Your task to perform on an android device: see creations saved in the google photos Image 0: 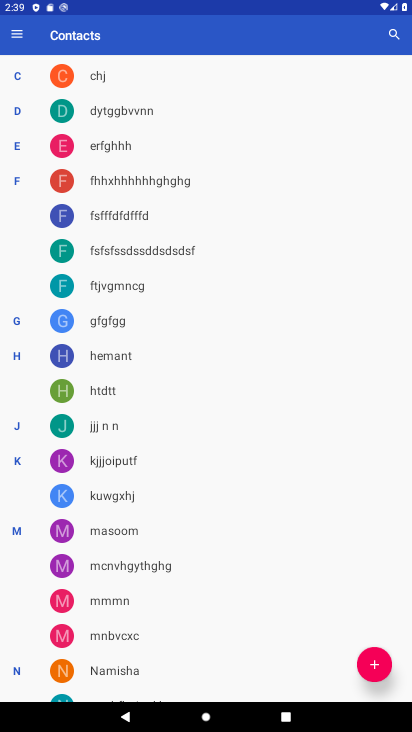
Step 0: press home button
Your task to perform on an android device: see creations saved in the google photos Image 1: 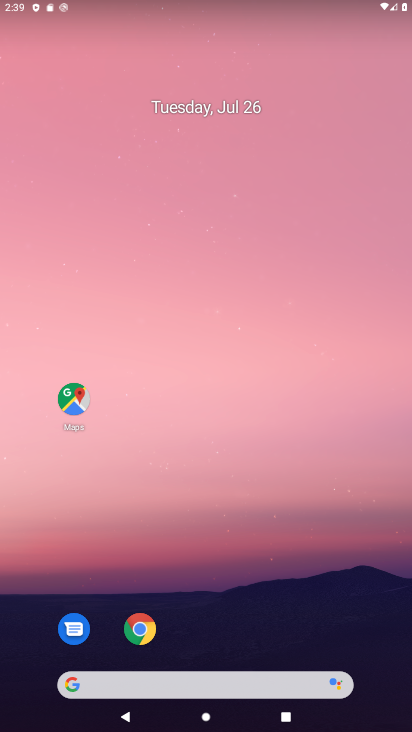
Step 1: click (134, 629)
Your task to perform on an android device: see creations saved in the google photos Image 2: 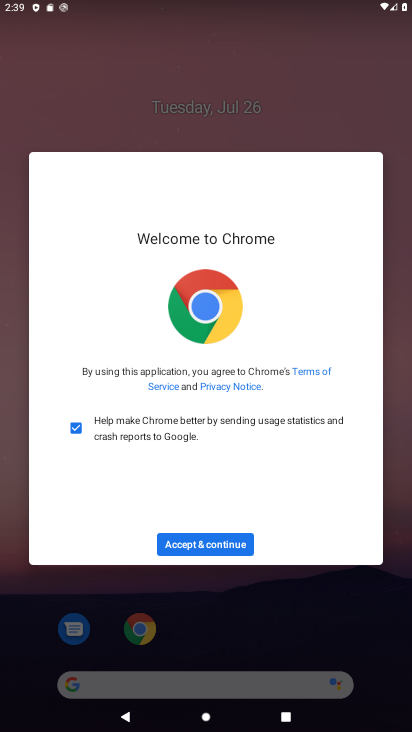
Step 2: click (194, 538)
Your task to perform on an android device: see creations saved in the google photos Image 3: 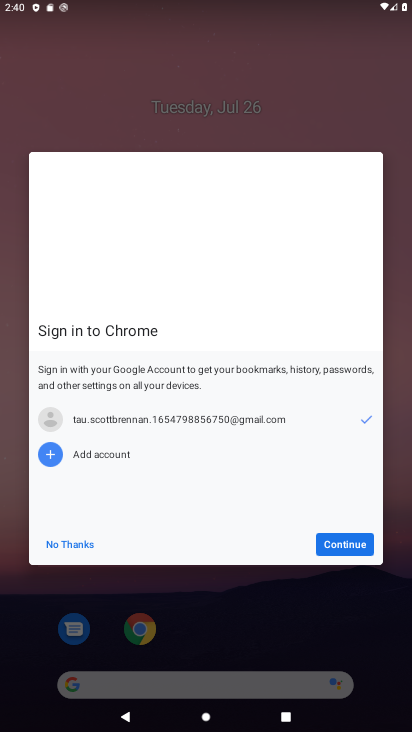
Step 3: click (339, 542)
Your task to perform on an android device: see creations saved in the google photos Image 4: 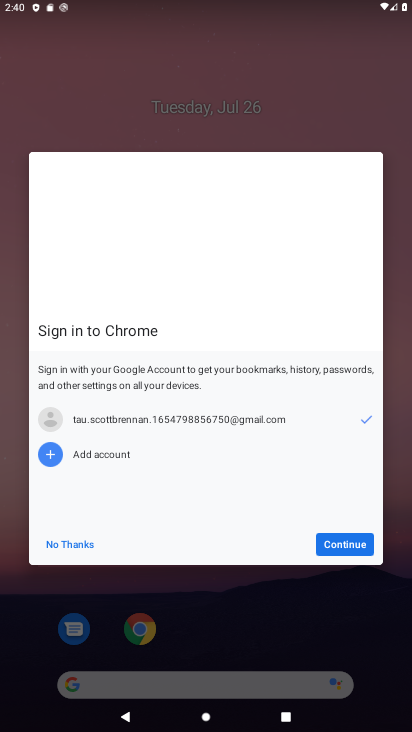
Step 4: click (339, 542)
Your task to perform on an android device: see creations saved in the google photos Image 5: 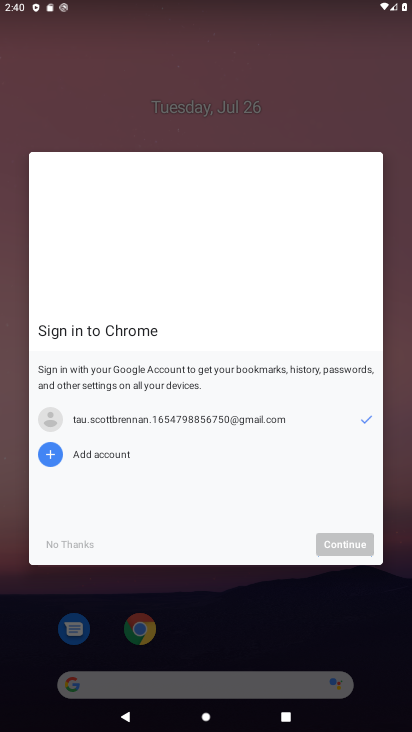
Step 5: click (339, 542)
Your task to perform on an android device: see creations saved in the google photos Image 6: 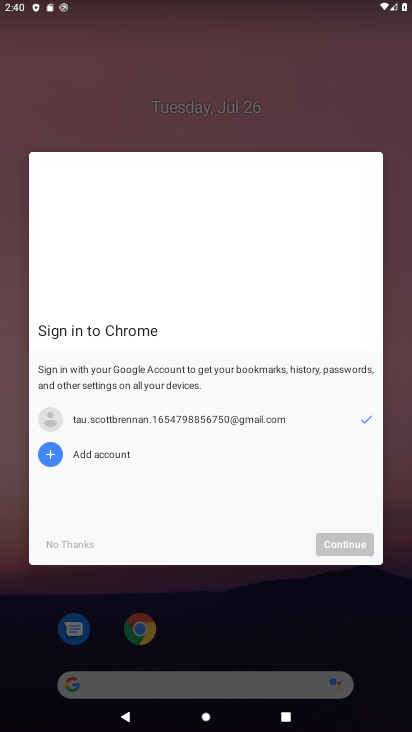
Step 6: click (339, 542)
Your task to perform on an android device: see creations saved in the google photos Image 7: 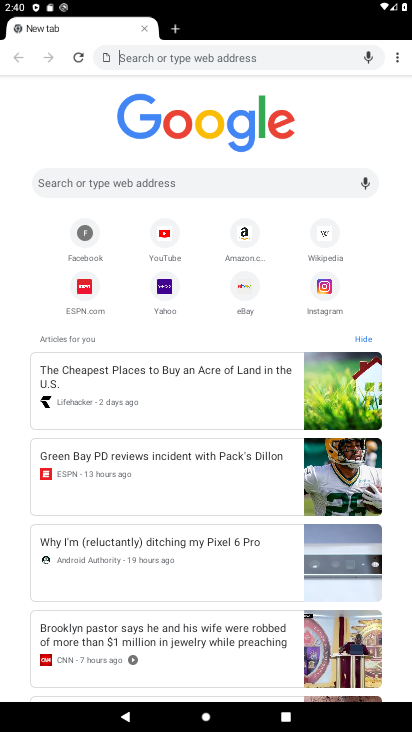
Step 7: press home button
Your task to perform on an android device: see creations saved in the google photos Image 8: 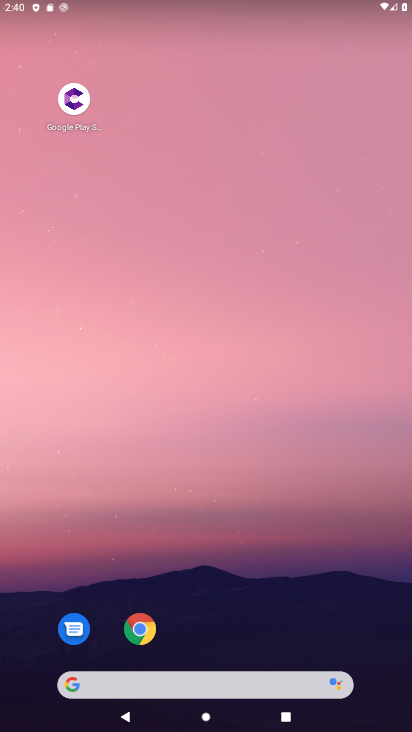
Step 8: drag from (275, 557) to (408, 11)
Your task to perform on an android device: see creations saved in the google photos Image 9: 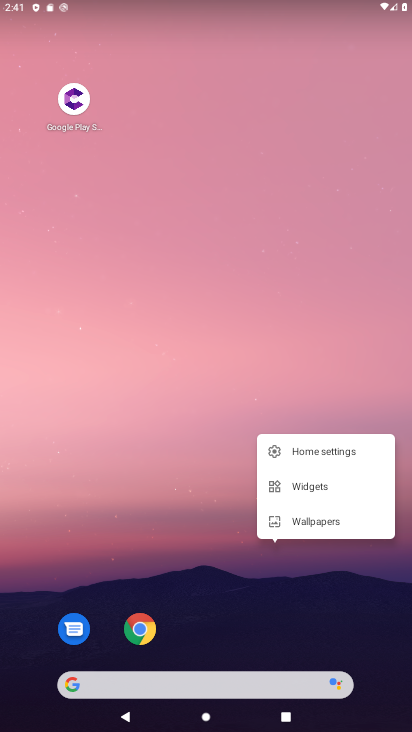
Step 9: drag from (262, 665) to (198, 255)
Your task to perform on an android device: see creations saved in the google photos Image 10: 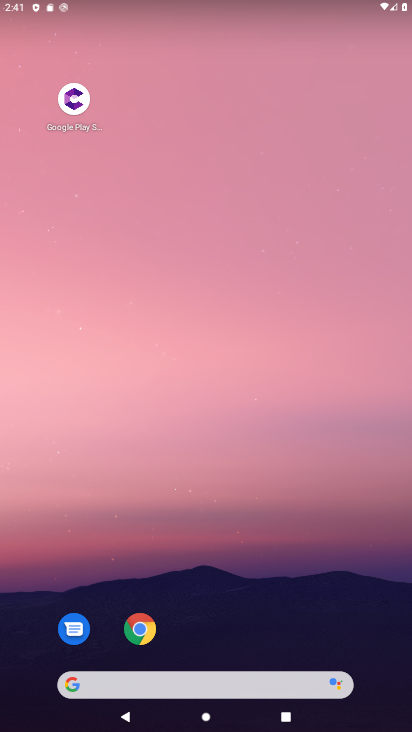
Step 10: drag from (393, 608) to (352, 4)
Your task to perform on an android device: see creations saved in the google photos Image 11: 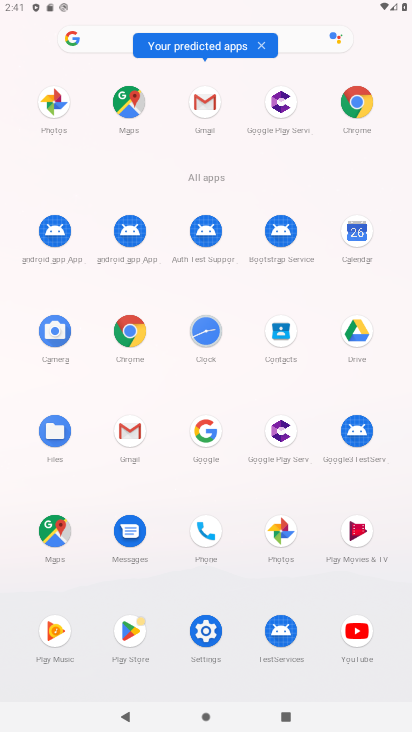
Step 11: click (293, 534)
Your task to perform on an android device: see creations saved in the google photos Image 12: 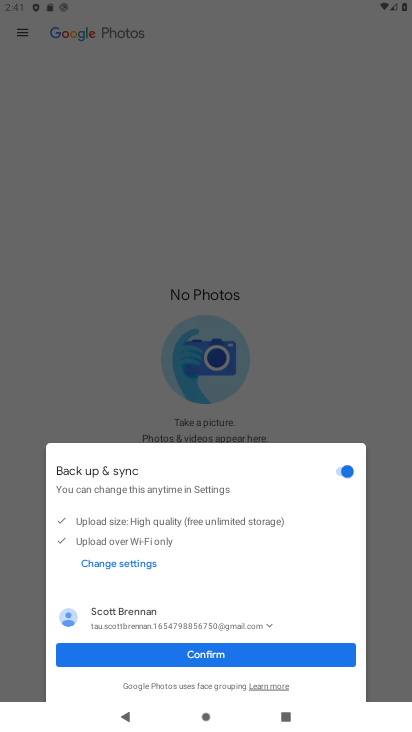
Step 12: click (131, 660)
Your task to perform on an android device: see creations saved in the google photos Image 13: 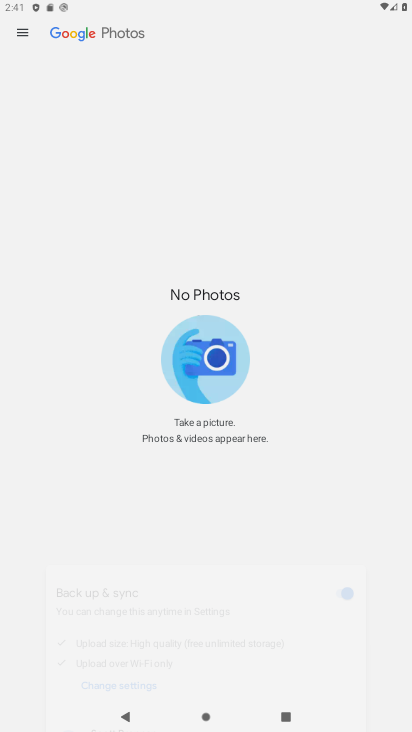
Step 13: click (131, 660)
Your task to perform on an android device: see creations saved in the google photos Image 14: 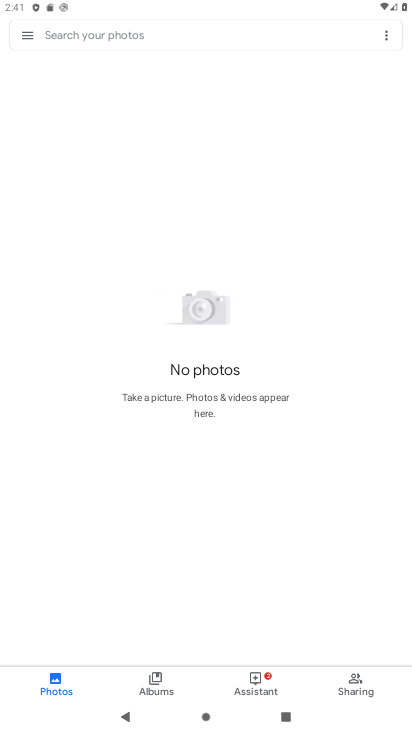
Step 14: click (58, 31)
Your task to perform on an android device: see creations saved in the google photos Image 15: 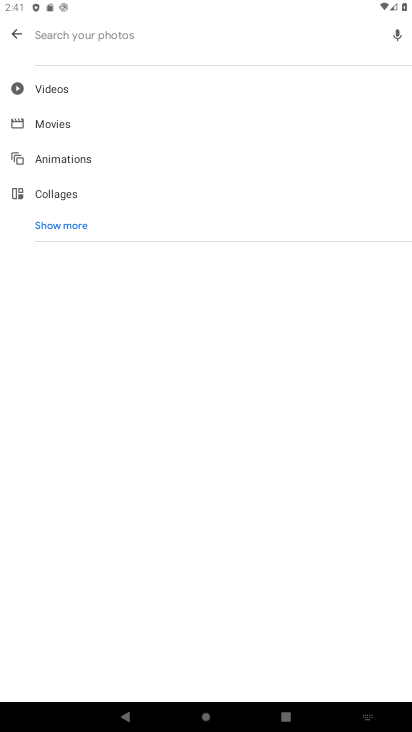
Step 15: click (54, 219)
Your task to perform on an android device: see creations saved in the google photos Image 16: 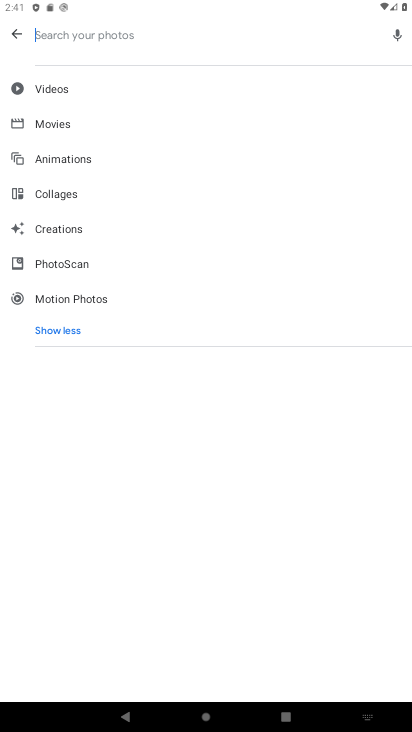
Step 16: click (54, 219)
Your task to perform on an android device: see creations saved in the google photos Image 17: 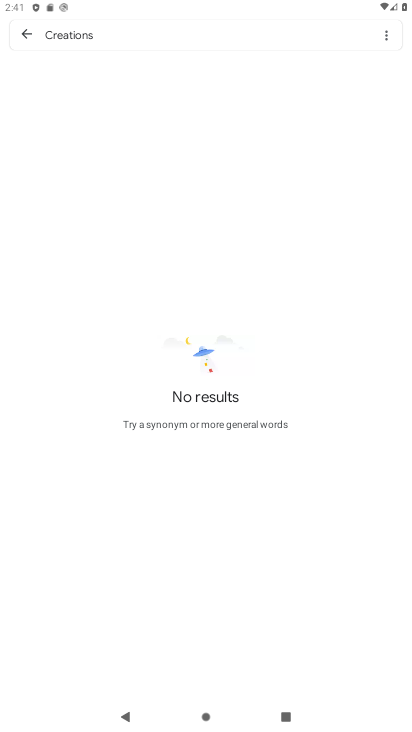
Step 17: task complete